Your task to perform on an android device: turn off location Image 0: 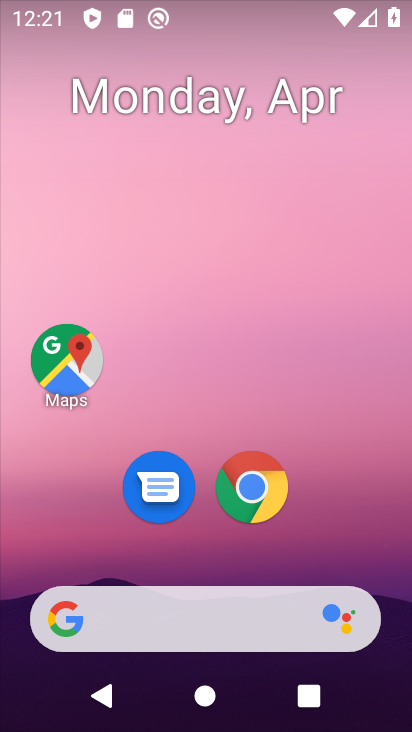
Step 0: drag from (398, 623) to (277, 113)
Your task to perform on an android device: turn off location Image 1: 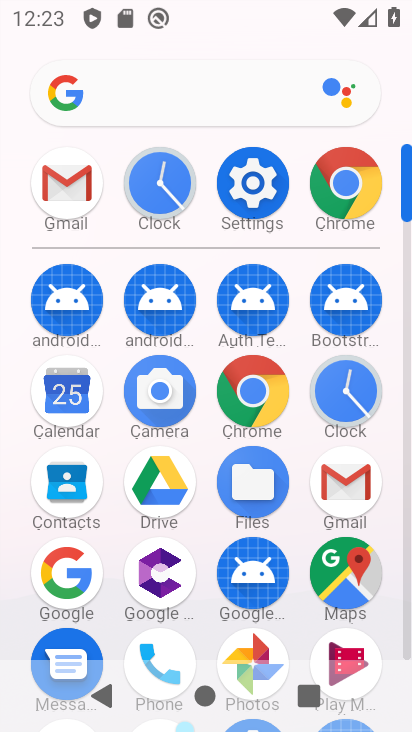
Step 1: click (267, 205)
Your task to perform on an android device: turn off location Image 2: 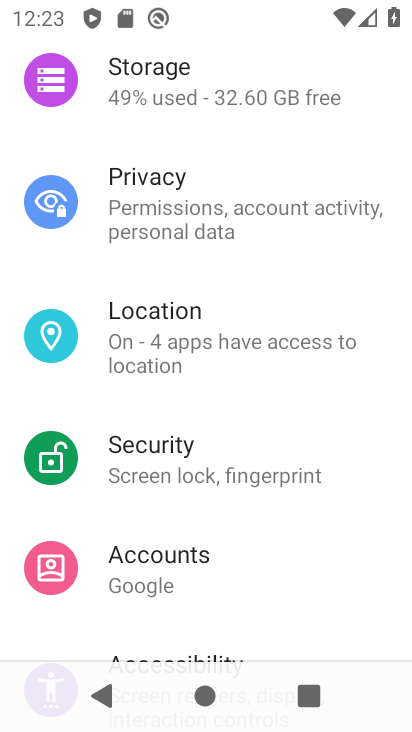
Step 2: click (211, 362)
Your task to perform on an android device: turn off location Image 3: 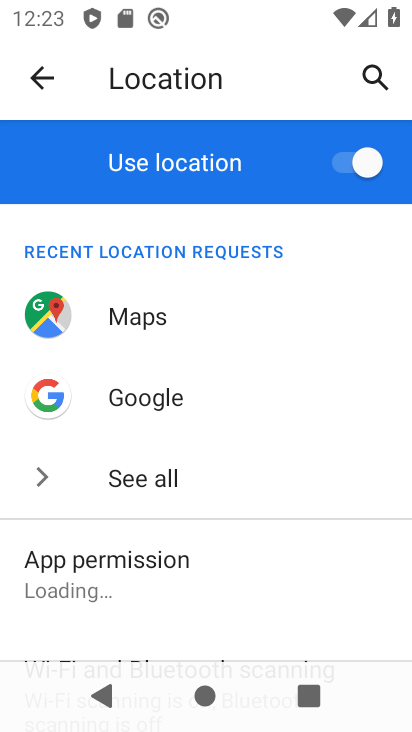
Step 3: click (300, 174)
Your task to perform on an android device: turn off location Image 4: 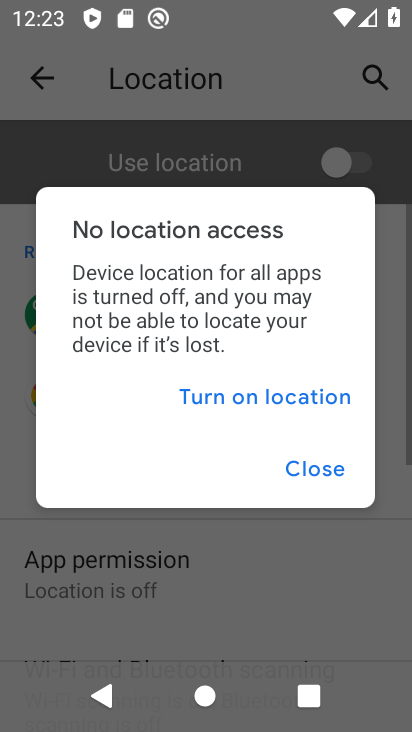
Step 4: task complete